Your task to perform on an android device: set the stopwatch Image 0: 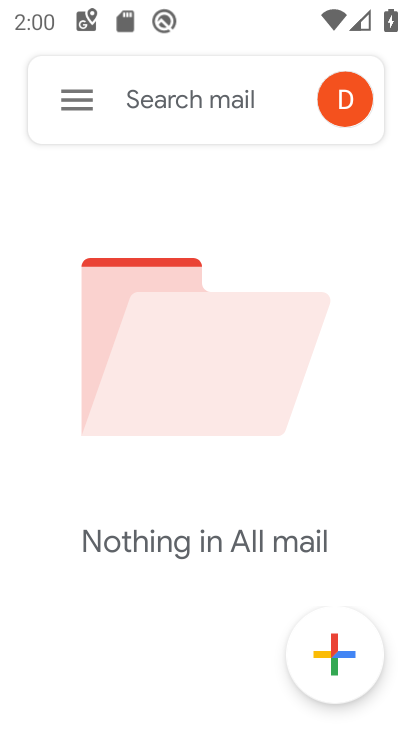
Step 0: press home button
Your task to perform on an android device: set the stopwatch Image 1: 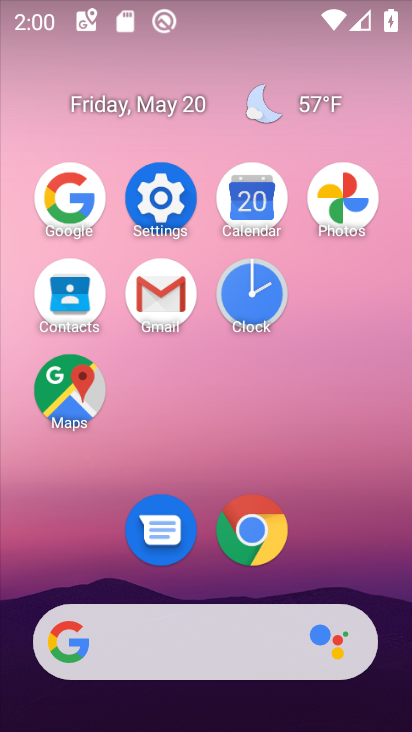
Step 1: click (266, 305)
Your task to perform on an android device: set the stopwatch Image 2: 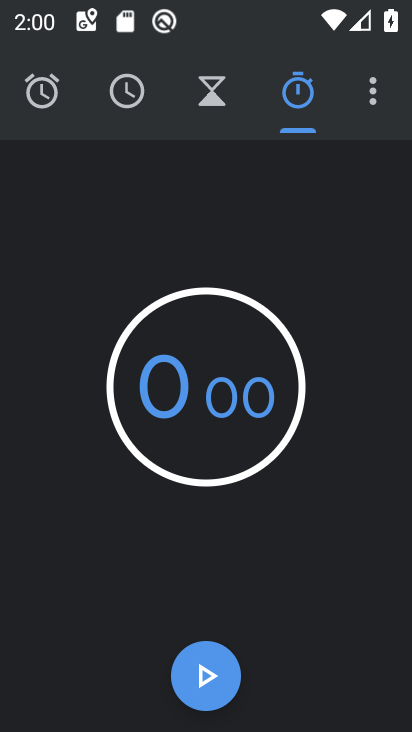
Step 2: click (197, 679)
Your task to perform on an android device: set the stopwatch Image 3: 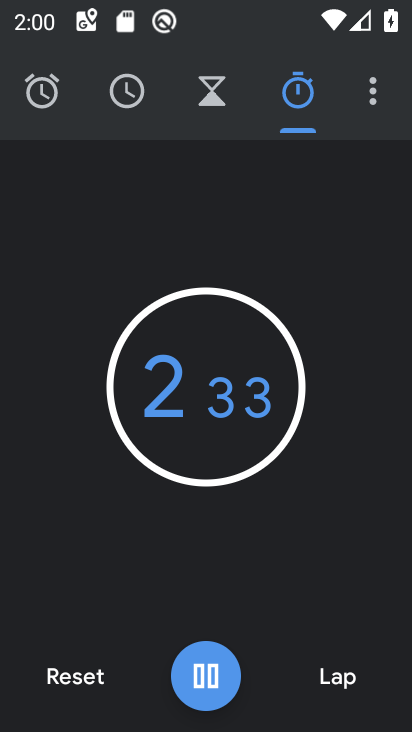
Step 3: task complete